Your task to perform on an android device: install app "eBay: The shopping marketplace" Image 0: 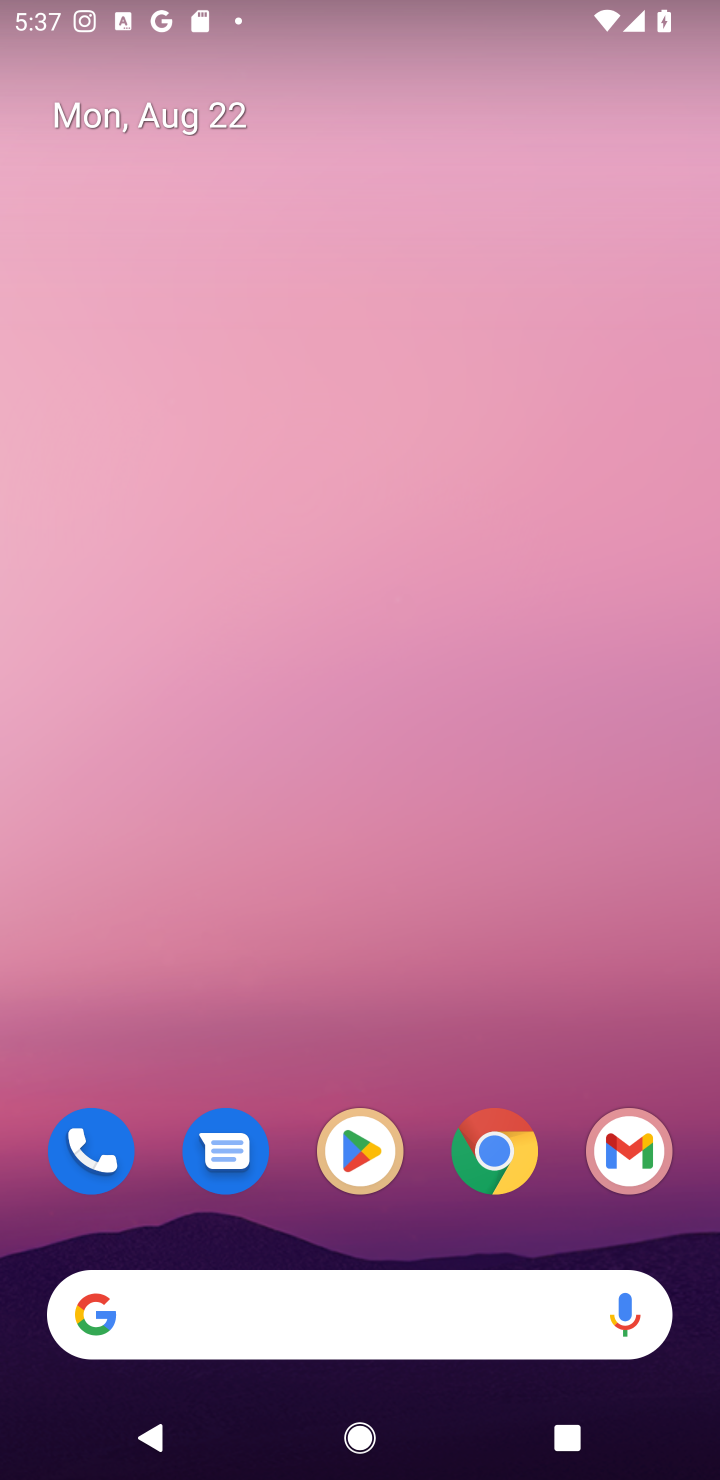
Step 0: click (367, 1142)
Your task to perform on an android device: install app "eBay: The shopping marketplace" Image 1: 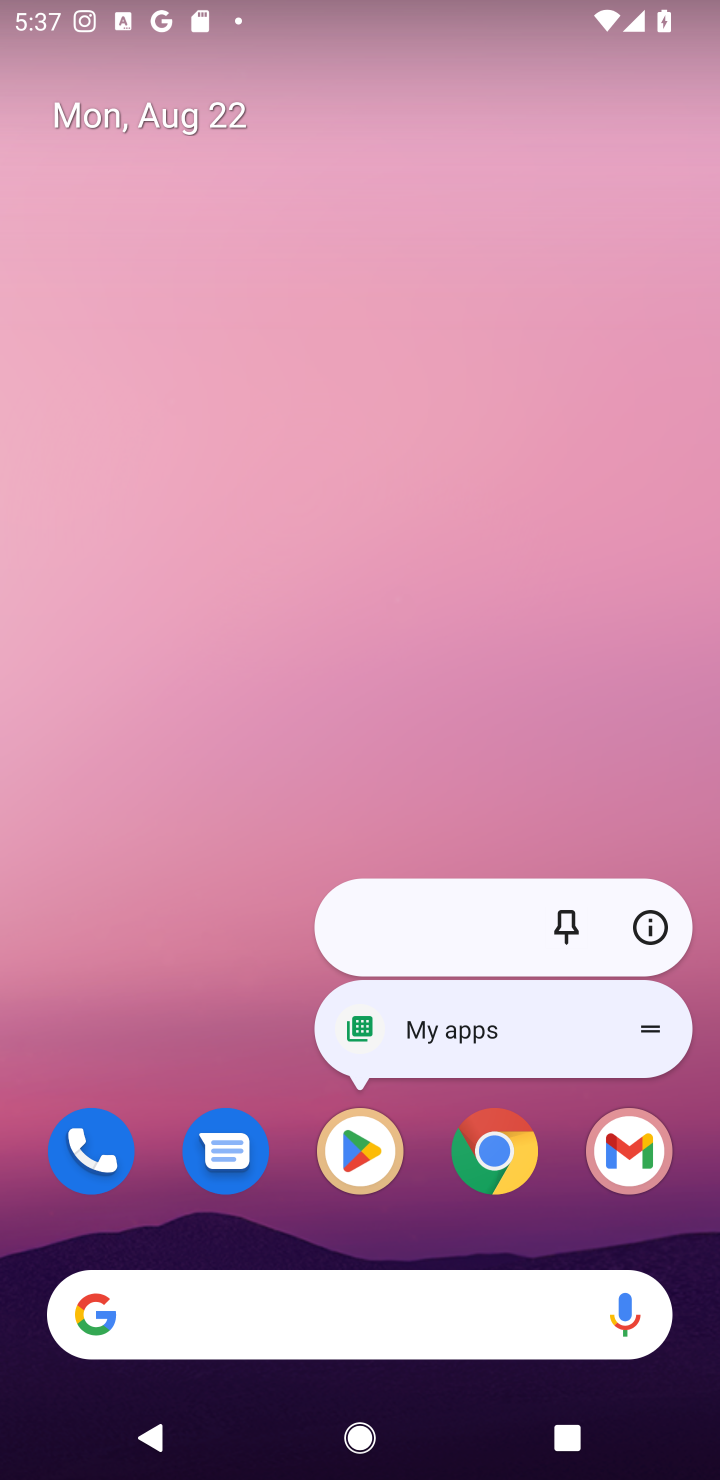
Step 1: click (367, 1148)
Your task to perform on an android device: install app "eBay: The shopping marketplace" Image 2: 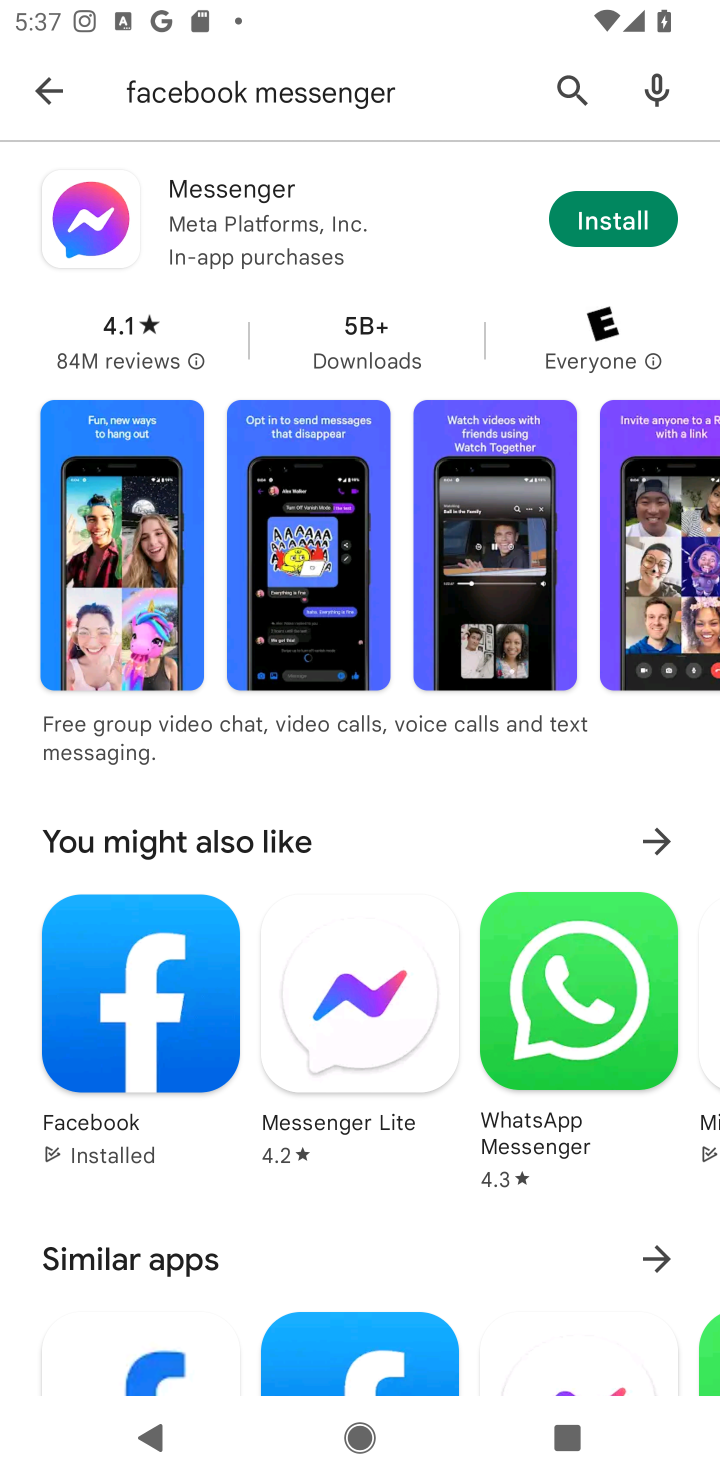
Step 2: click (570, 78)
Your task to perform on an android device: install app "eBay: The shopping marketplace" Image 3: 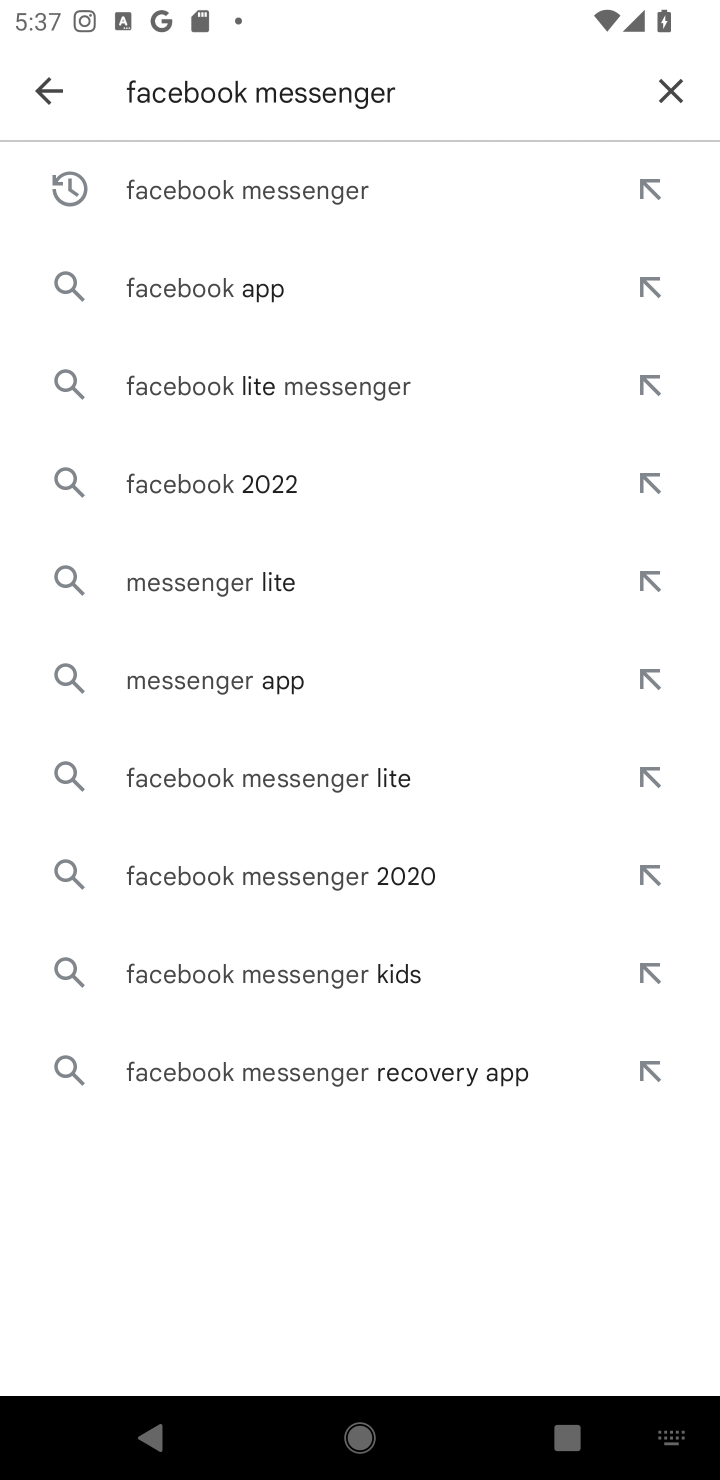
Step 3: click (649, 78)
Your task to perform on an android device: install app "eBay: The shopping marketplace" Image 4: 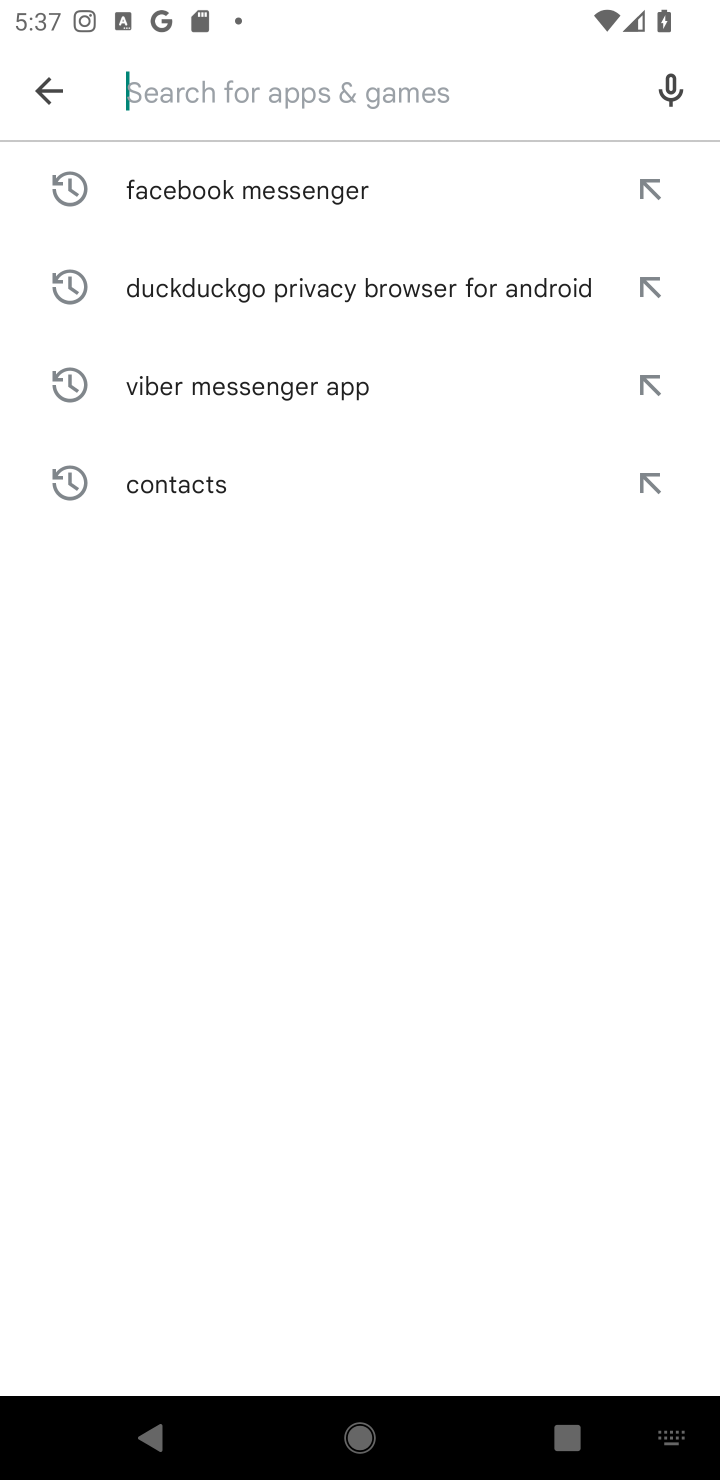
Step 4: type "eBay: The shopping marketplace"
Your task to perform on an android device: install app "eBay: The shopping marketplace" Image 5: 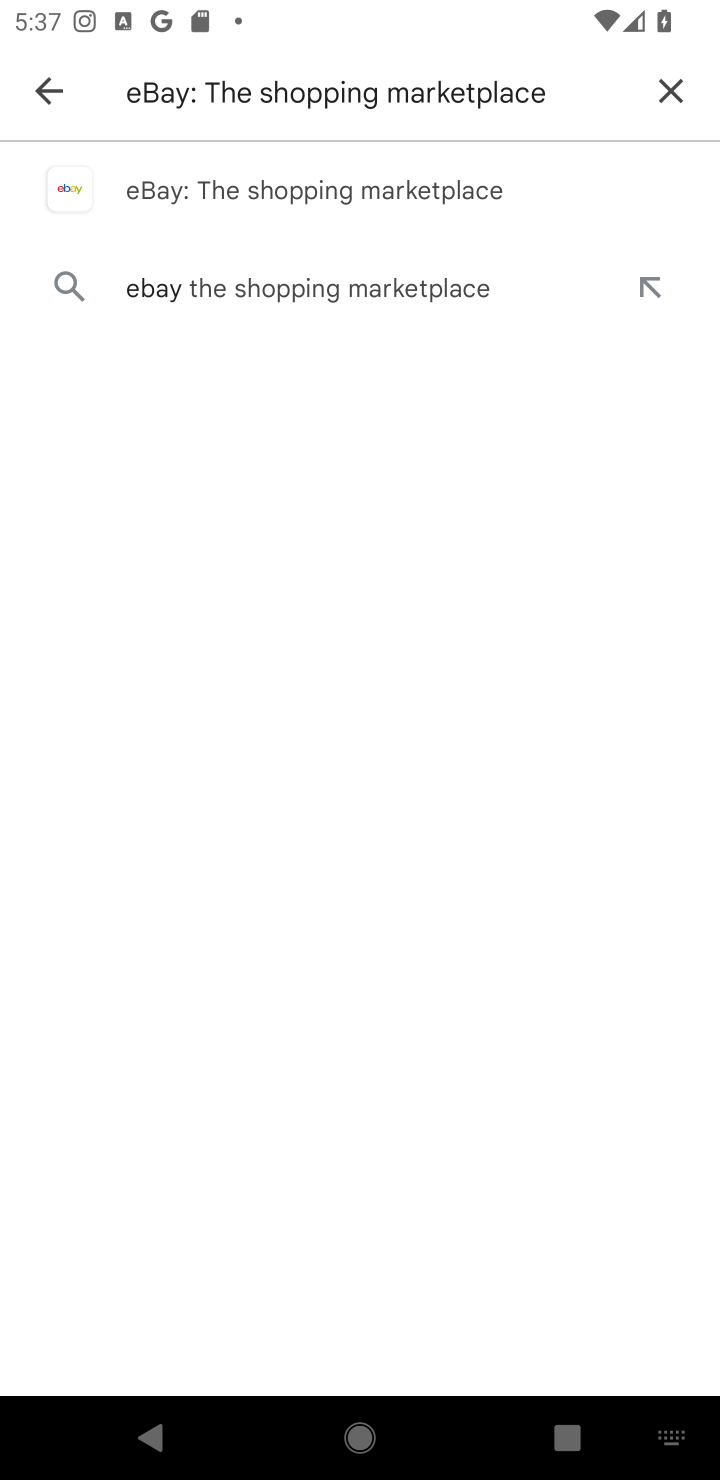
Step 5: click (345, 192)
Your task to perform on an android device: install app "eBay: The shopping marketplace" Image 6: 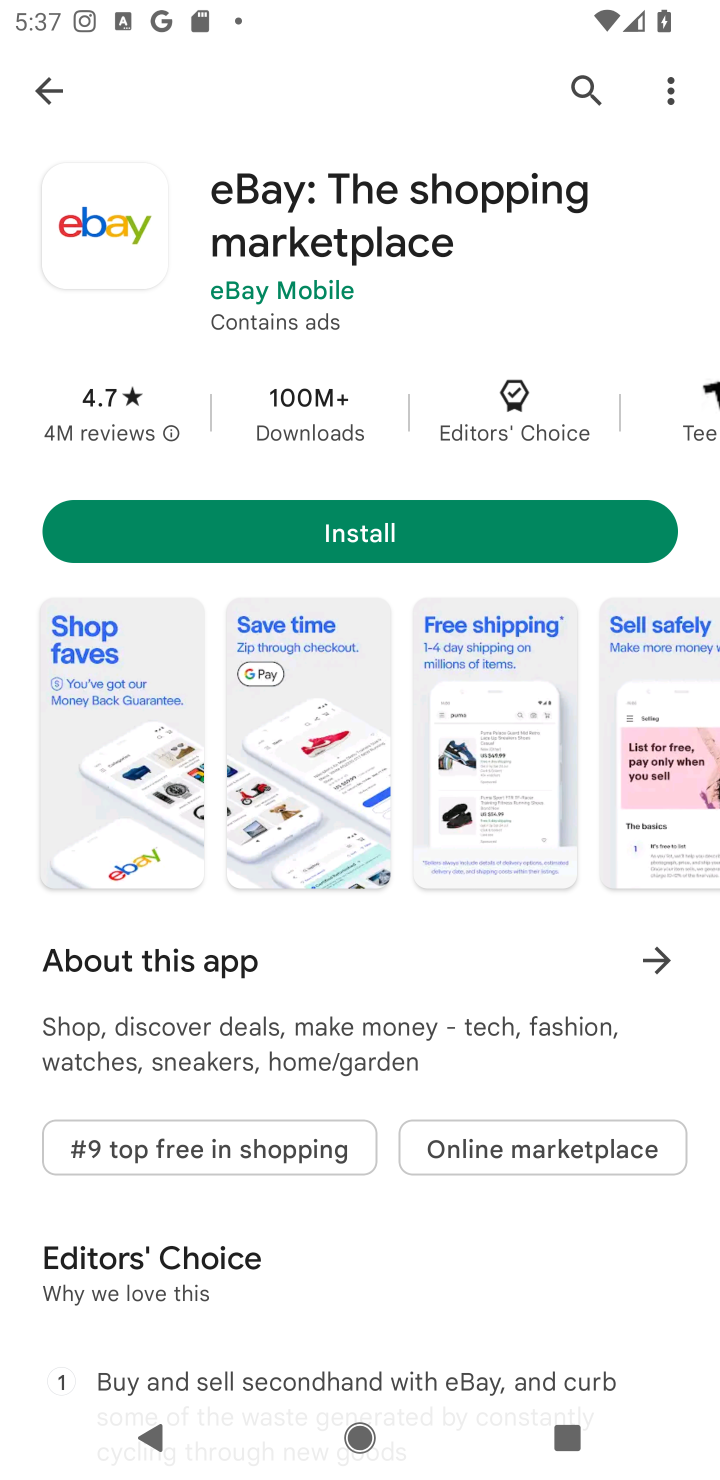
Step 6: click (405, 539)
Your task to perform on an android device: install app "eBay: The shopping marketplace" Image 7: 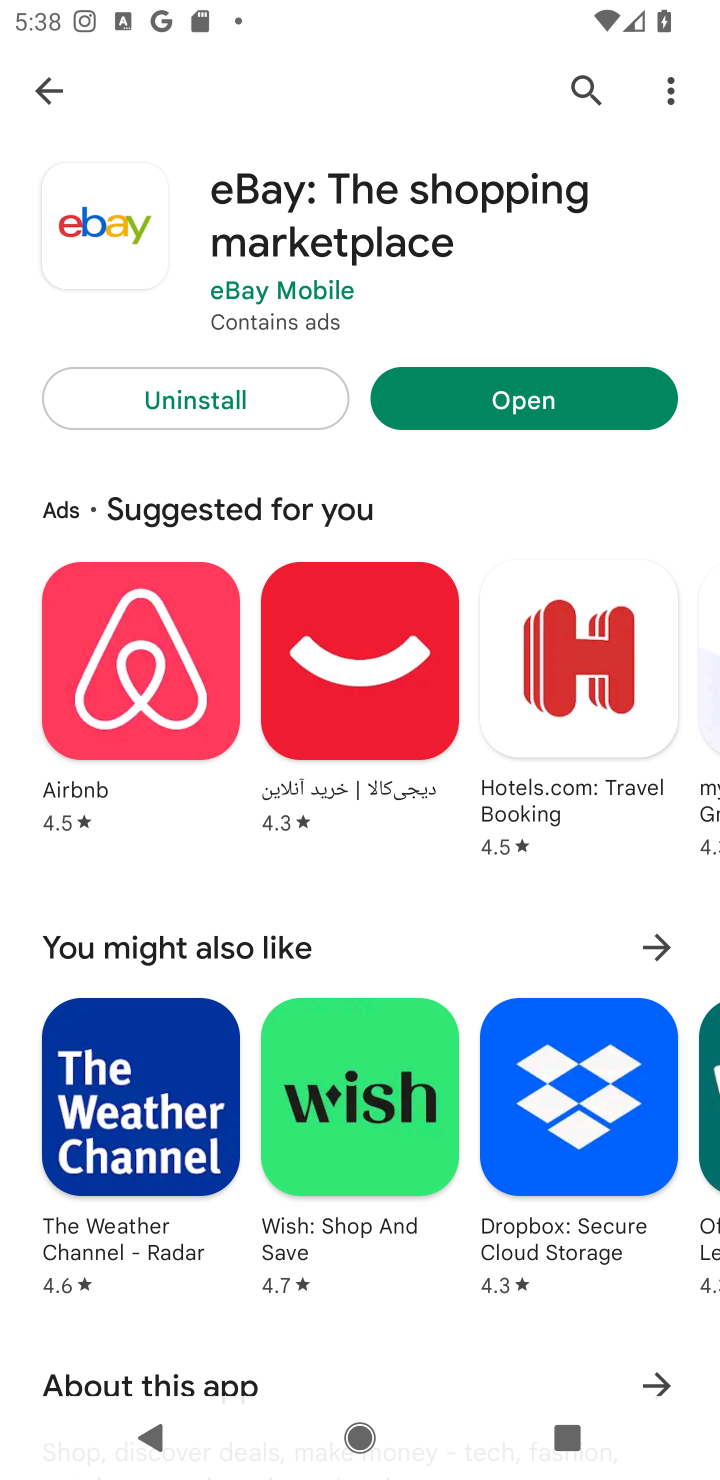
Step 7: task complete